Your task to perform on an android device: Go to privacy settings Image 0: 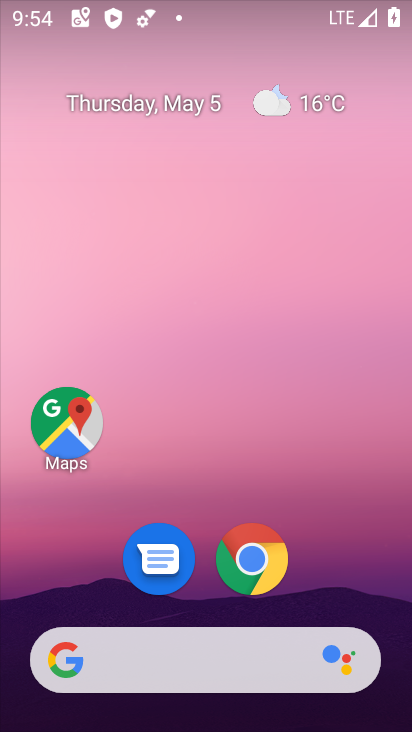
Step 0: drag from (203, 612) to (222, 118)
Your task to perform on an android device: Go to privacy settings Image 1: 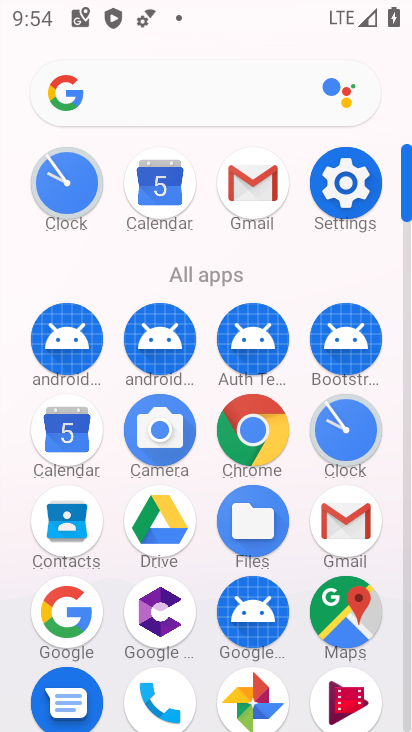
Step 1: click (346, 210)
Your task to perform on an android device: Go to privacy settings Image 2: 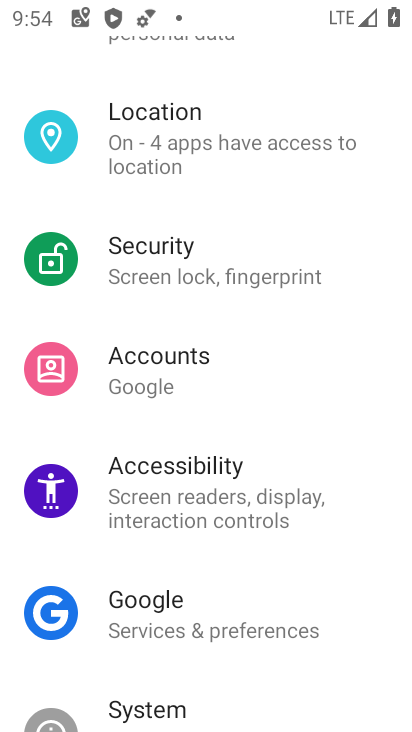
Step 2: drag from (224, 271) to (211, 606)
Your task to perform on an android device: Go to privacy settings Image 3: 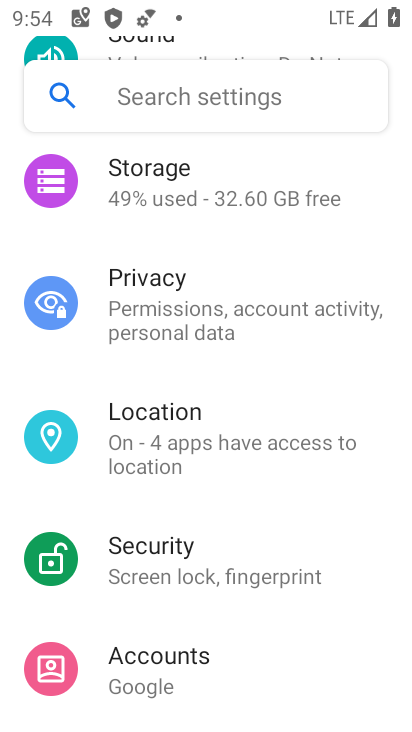
Step 3: click (205, 325)
Your task to perform on an android device: Go to privacy settings Image 4: 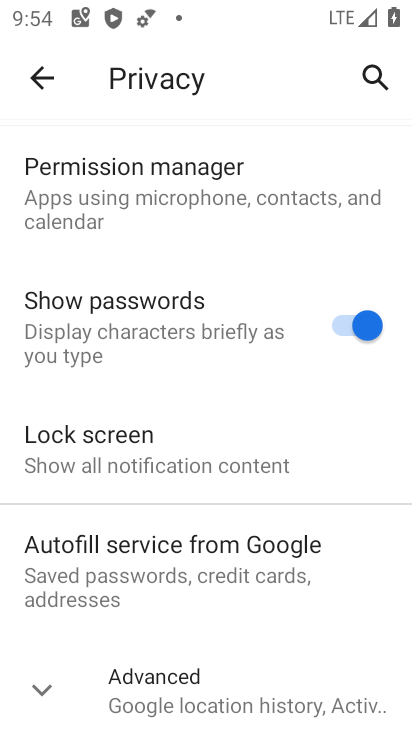
Step 4: task complete